Your task to perform on an android device: What is the news today? Image 0: 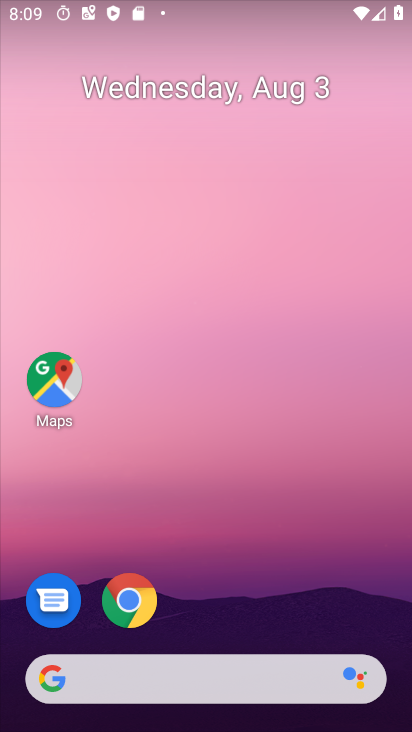
Step 0: click (179, 684)
Your task to perform on an android device: What is the news today? Image 1: 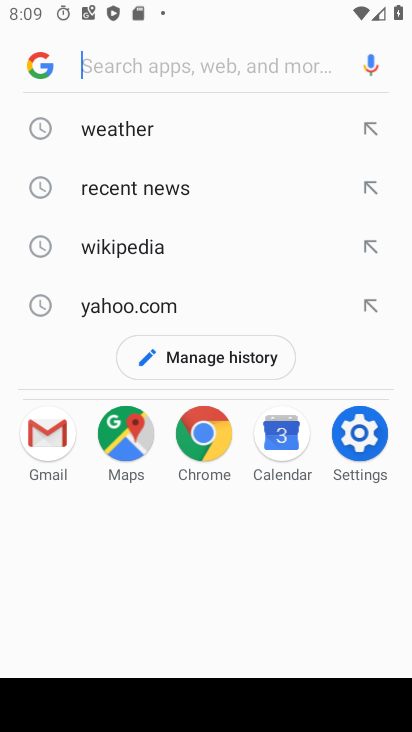
Step 1: type "news today ?"
Your task to perform on an android device: What is the news today? Image 2: 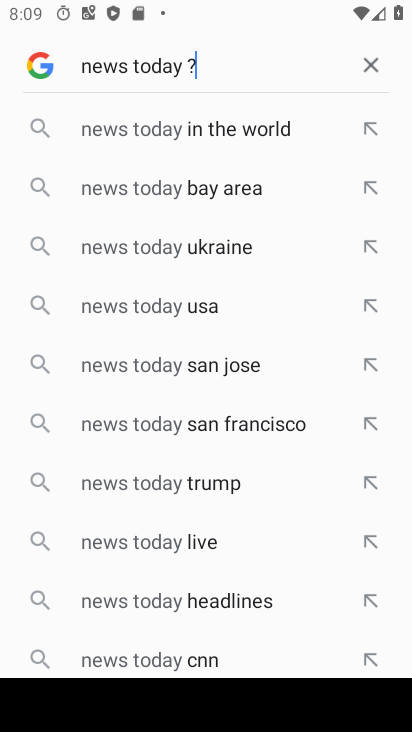
Step 2: click (110, 550)
Your task to perform on an android device: What is the news today? Image 3: 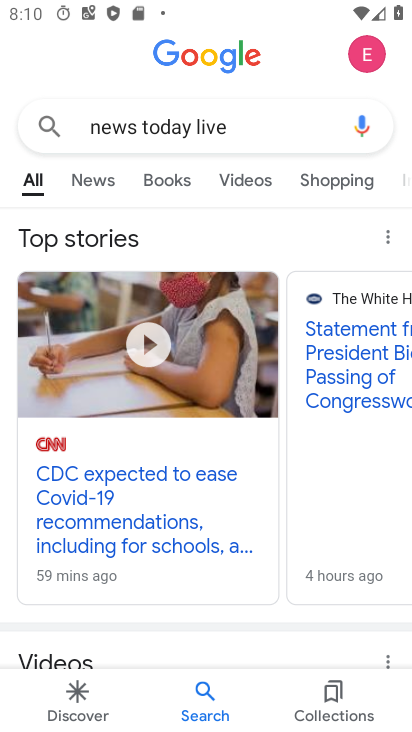
Step 3: task complete